Your task to perform on an android device: View the shopping cart on ebay. Search for acer predator on ebay, select the first entry, add it to the cart, then select checkout. Image 0: 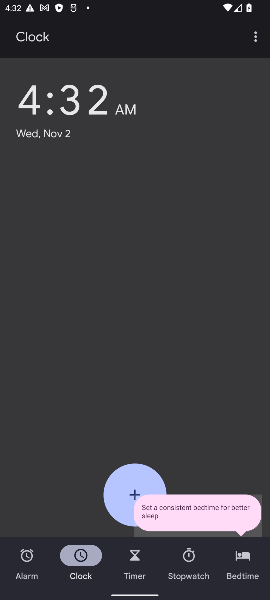
Step 0: press home button
Your task to perform on an android device: View the shopping cart on ebay. Search for acer predator on ebay, select the first entry, add it to the cart, then select checkout. Image 1: 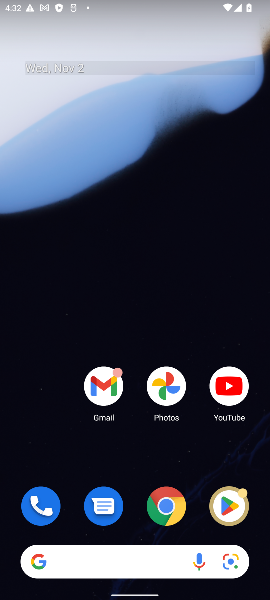
Step 1: click (166, 507)
Your task to perform on an android device: View the shopping cart on ebay. Search for acer predator on ebay, select the first entry, add it to the cart, then select checkout. Image 2: 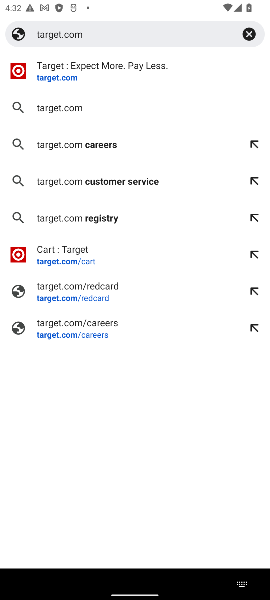
Step 2: click (250, 36)
Your task to perform on an android device: View the shopping cart on ebay. Search for acer predator on ebay, select the first entry, add it to the cart, then select checkout. Image 3: 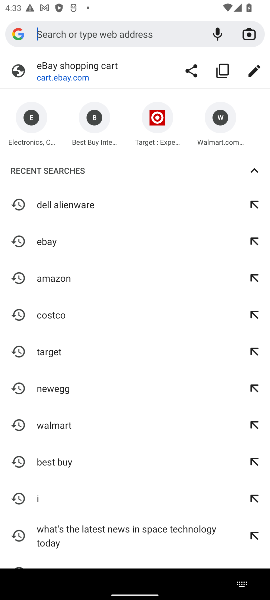
Step 3: type "ebay"
Your task to perform on an android device: View the shopping cart on ebay. Search for acer predator on ebay, select the first entry, add it to the cart, then select checkout. Image 4: 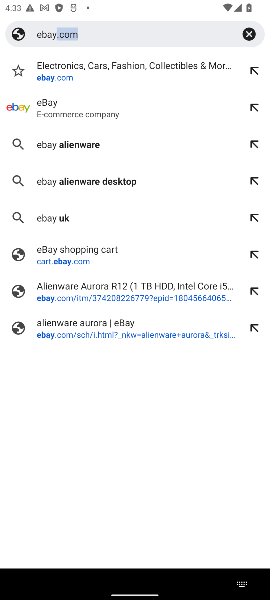
Step 4: click (83, 66)
Your task to perform on an android device: View the shopping cart on ebay. Search for acer predator on ebay, select the first entry, add it to the cart, then select checkout. Image 5: 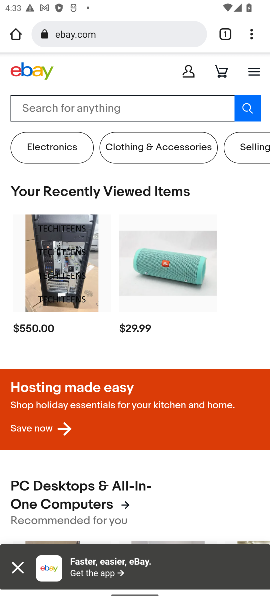
Step 5: click (132, 102)
Your task to perform on an android device: View the shopping cart on ebay. Search for acer predator on ebay, select the first entry, add it to the cart, then select checkout. Image 6: 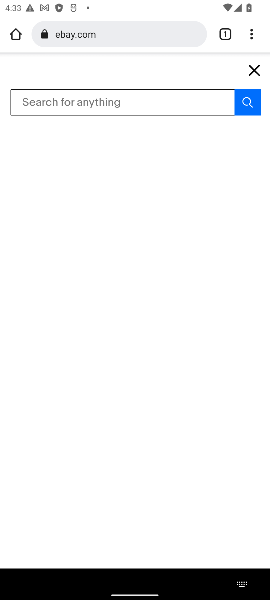
Step 6: type "acer predator"
Your task to perform on an android device: View the shopping cart on ebay. Search for acer predator on ebay, select the first entry, add it to the cart, then select checkout. Image 7: 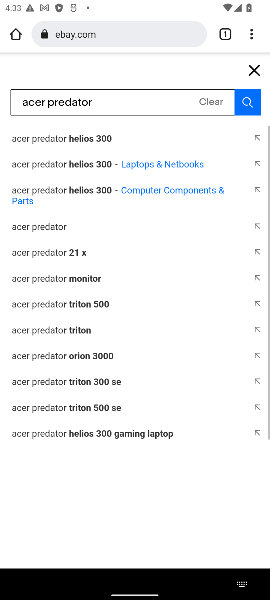
Step 7: press enter
Your task to perform on an android device: View the shopping cart on ebay. Search for acer predator on ebay, select the first entry, add it to the cart, then select checkout. Image 8: 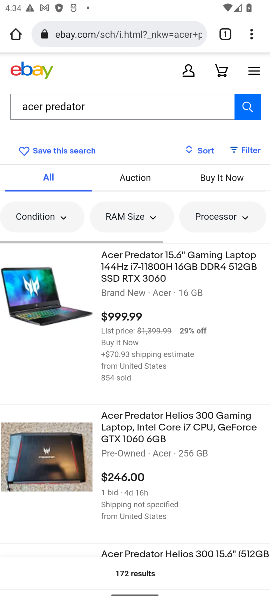
Step 8: click (71, 310)
Your task to perform on an android device: View the shopping cart on ebay. Search for acer predator on ebay, select the first entry, add it to the cart, then select checkout. Image 9: 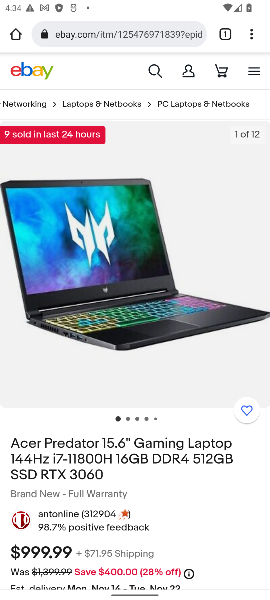
Step 9: drag from (149, 491) to (84, 118)
Your task to perform on an android device: View the shopping cart on ebay. Search for acer predator on ebay, select the first entry, add it to the cart, then select checkout. Image 10: 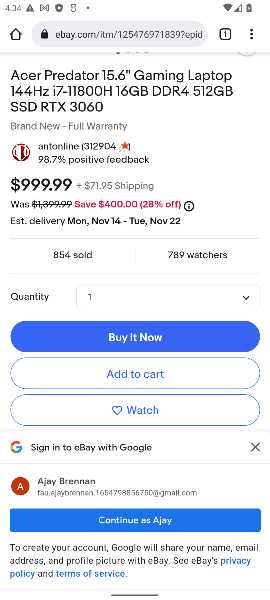
Step 10: drag from (146, 353) to (129, 280)
Your task to perform on an android device: View the shopping cart on ebay. Search for acer predator on ebay, select the first entry, add it to the cart, then select checkout. Image 11: 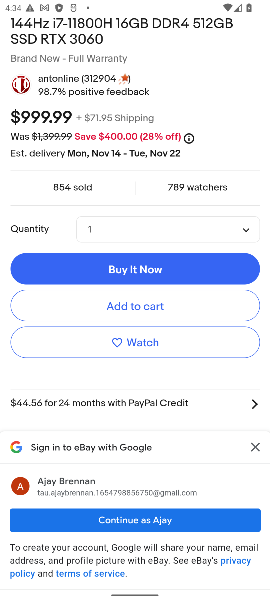
Step 11: click (196, 304)
Your task to perform on an android device: View the shopping cart on ebay. Search for acer predator on ebay, select the first entry, add it to the cart, then select checkout. Image 12: 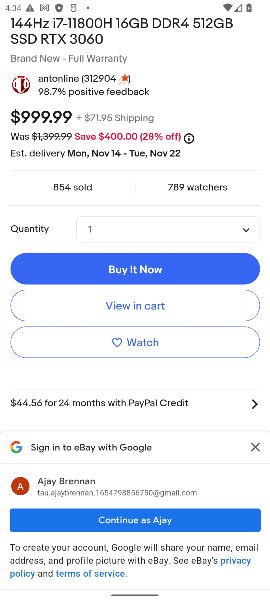
Step 12: task complete